Your task to perform on an android device: Open Yahoo.com Image 0: 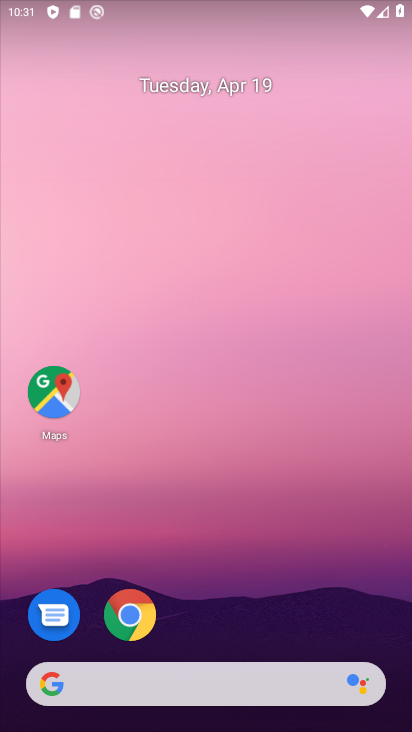
Step 0: click (128, 615)
Your task to perform on an android device: Open Yahoo.com Image 1: 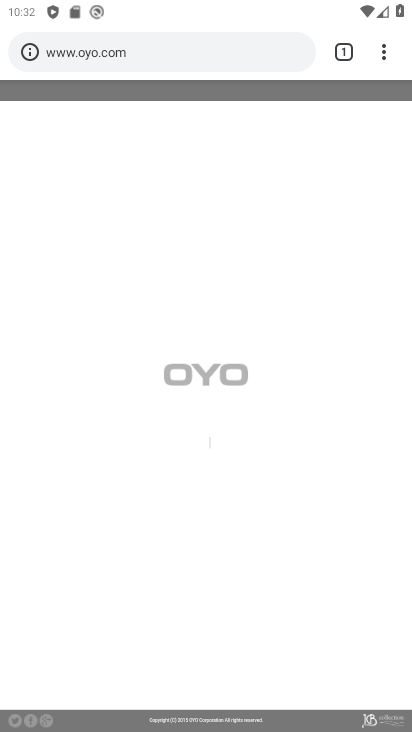
Step 1: task complete